Your task to perform on an android device: Open my contact list Image 0: 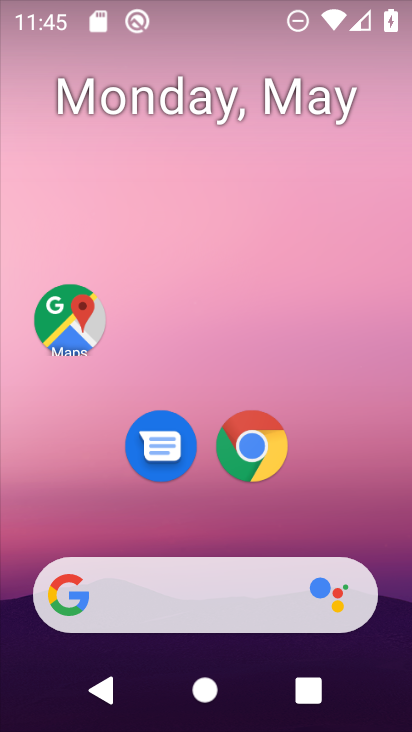
Step 0: drag from (350, 443) to (352, 118)
Your task to perform on an android device: Open my contact list Image 1: 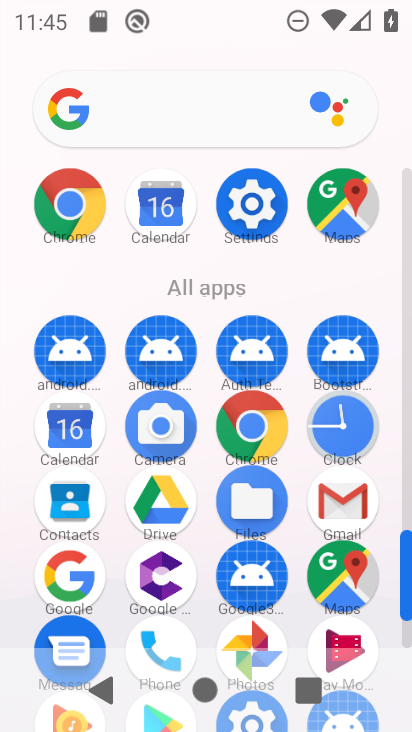
Step 1: click (71, 505)
Your task to perform on an android device: Open my contact list Image 2: 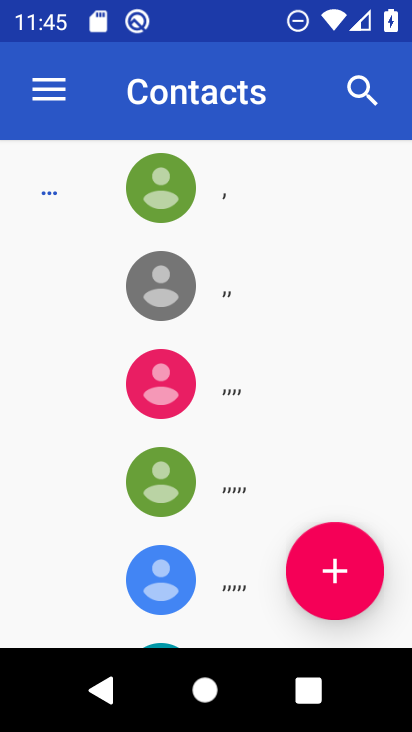
Step 2: task complete